Your task to perform on an android device: Play the last video I watched on Youtube Image 0: 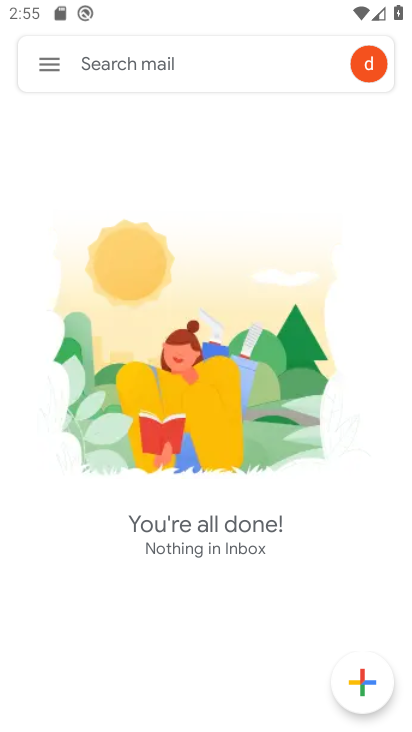
Step 0: press home button
Your task to perform on an android device: Play the last video I watched on Youtube Image 1: 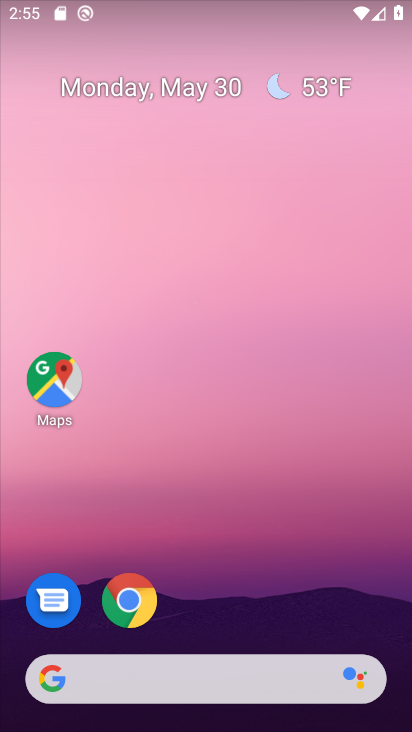
Step 1: drag from (337, 582) to (322, 143)
Your task to perform on an android device: Play the last video I watched on Youtube Image 2: 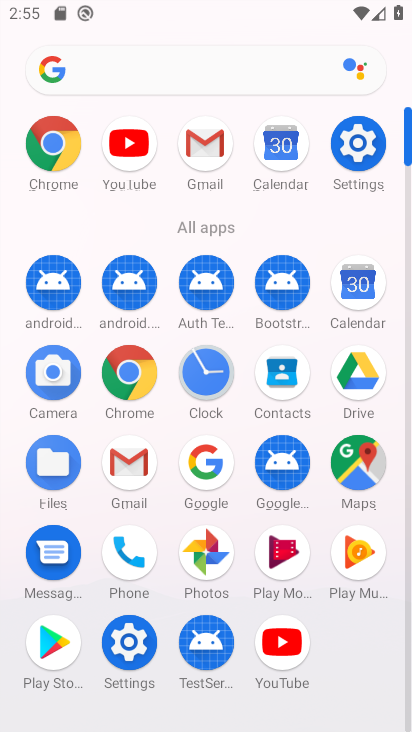
Step 2: click (126, 158)
Your task to perform on an android device: Play the last video I watched on Youtube Image 3: 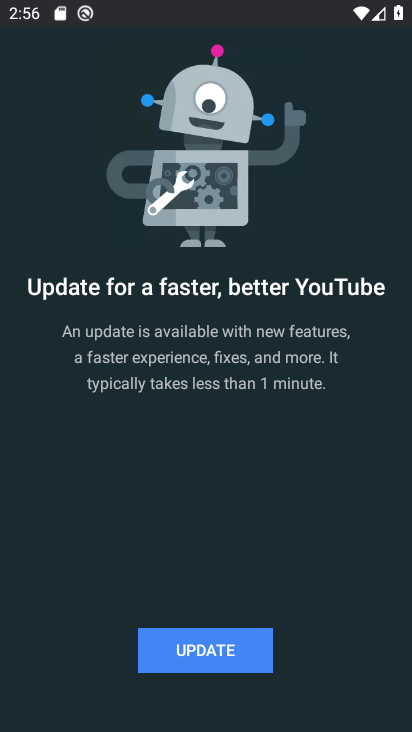
Step 3: click (186, 652)
Your task to perform on an android device: Play the last video I watched on Youtube Image 4: 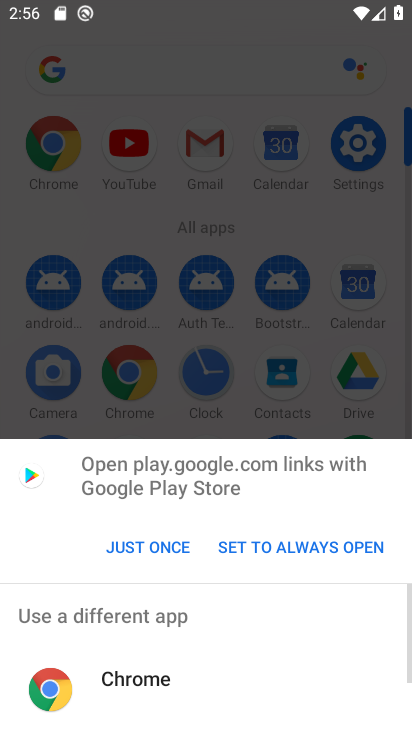
Step 4: click (156, 549)
Your task to perform on an android device: Play the last video I watched on Youtube Image 5: 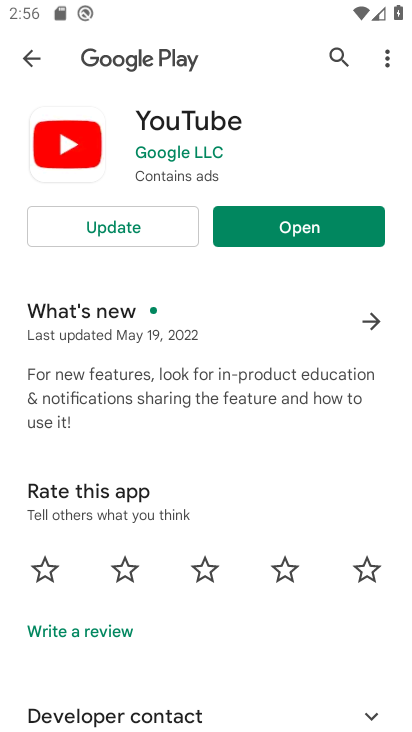
Step 5: click (128, 248)
Your task to perform on an android device: Play the last video I watched on Youtube Image 6: 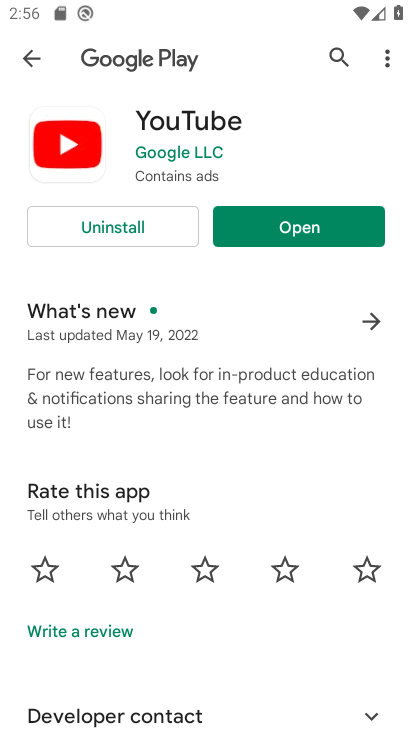
Step 6: click (283, 236)
Your task to perform on an android device: Play the last video I watched on Youtube Image 7: 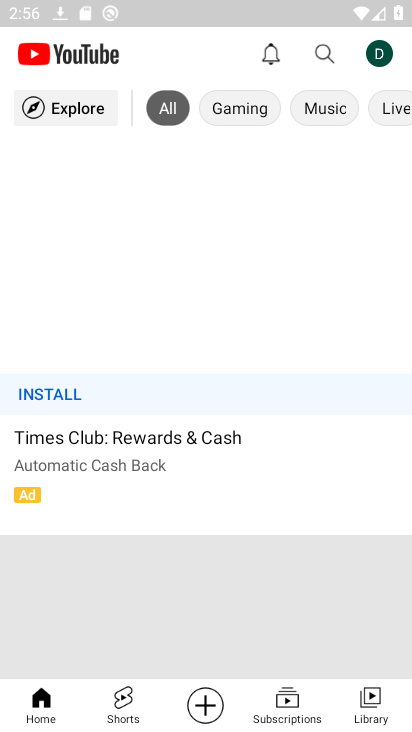
Step 7: click (367, 694)
Your task to perform on an android device: Play the last video I watched on Youtube Image 8: 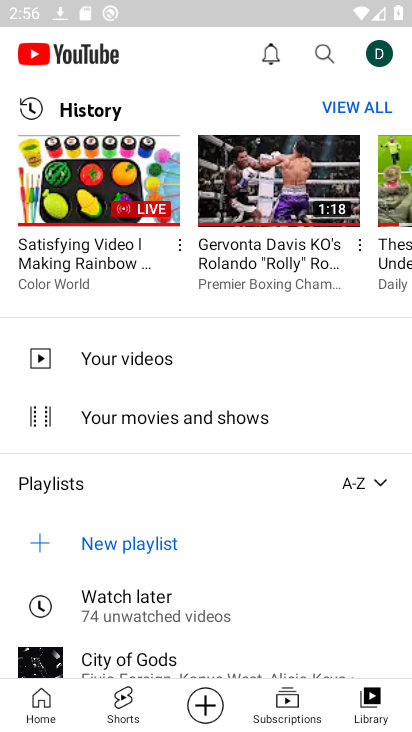
Step 8: click (88, 206)
Your task to perform on an android device: Play the last video I watched on Youtube Image 9: 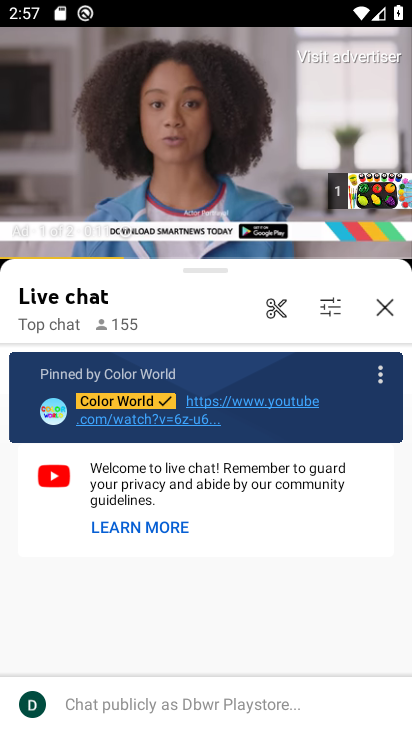
Step 9: task complete